Your task to perform on an android device: Is it going to rain today? Image 0: 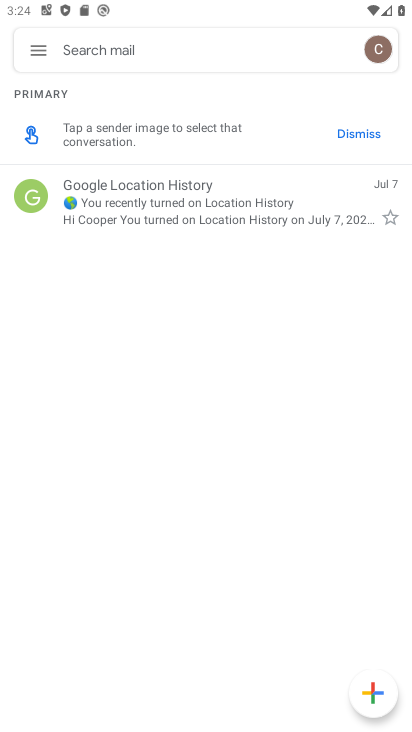
Step 0: press home button
Your task to perform on an android device: Is it going to rain today? Image 1: 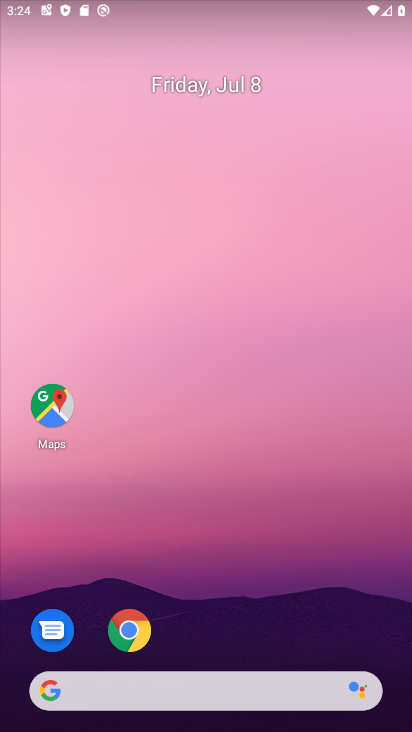
Step 1: click (232, 680)
Your task to perform on an android device: Is it going to rain today? Image 2: 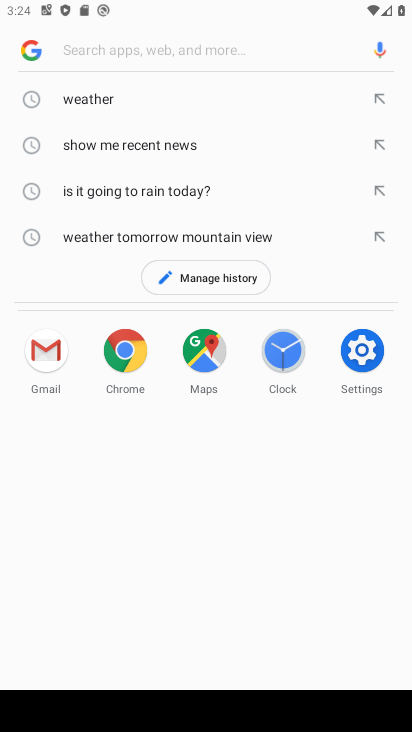
Step 2: click (179, 96)
Your task to perform on an android device: Is it going to rain today? Image 3: 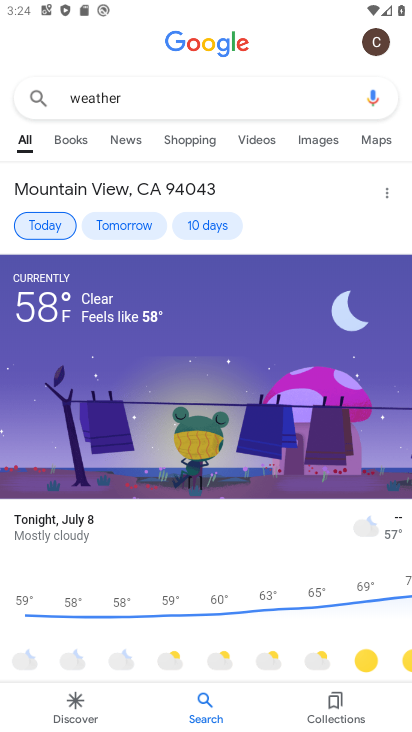
Step 3: task complete